Your task to perform on an android device: turn on the 12-hour format for clock Image 0: 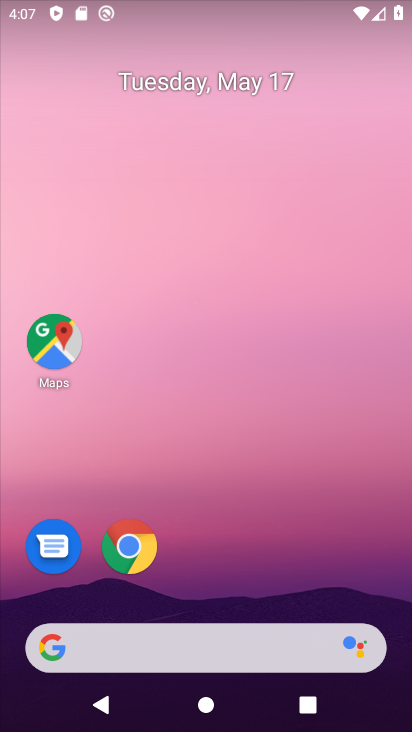
Step 0: drag from (221, 563) to (220, 167)
Your task to perform on an android device: turn on the 12-hour format for clock Image 1: 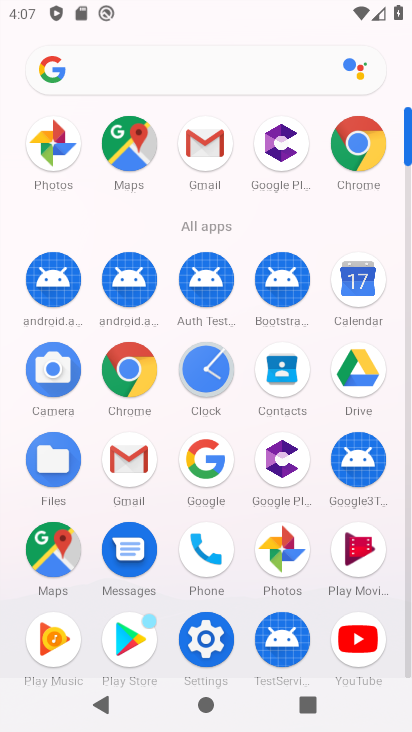
Step 1: click (214, 386)
Your task to perform on an android device: turn on the 12-hour format for clock Image 2: 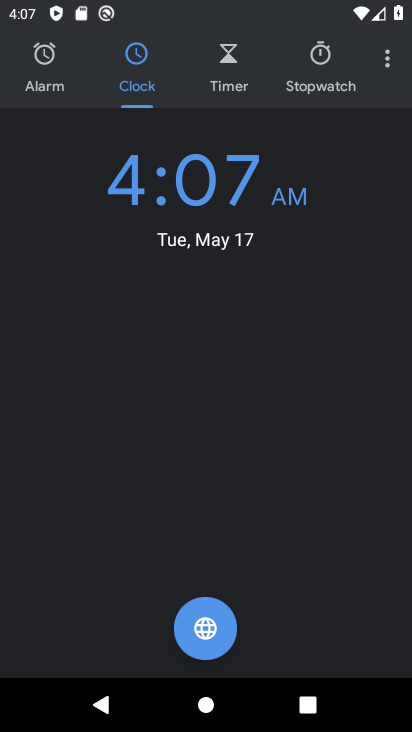
Step 2: click (391, 64)
Your task to perform on an android device: turn on the 12-hour format for clock Image 3: 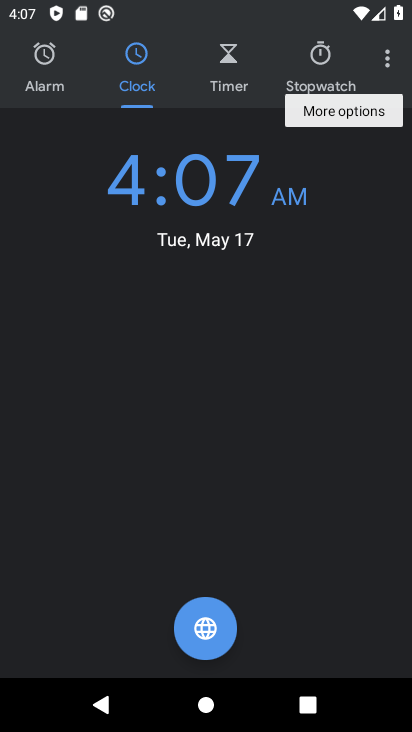
Step 3: drag from (391, 64) to (364, 92)
Your task to perform on an android device: turn on the 12-hour format for clock Image 4: 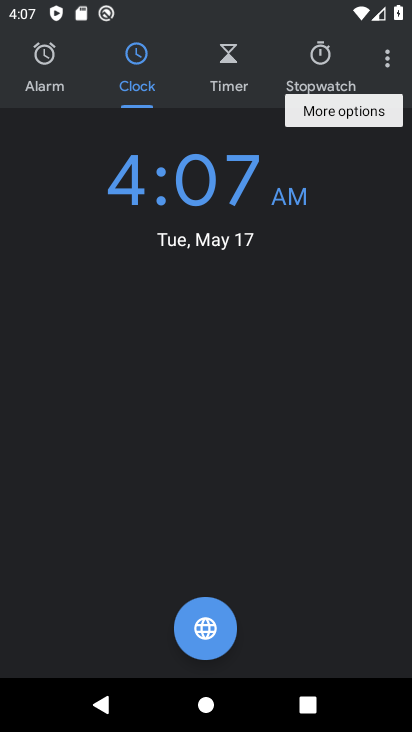
Step 4: click (385, 56)
Your task to perform on an android device: turn on the 12-hour format for clock Image 5: 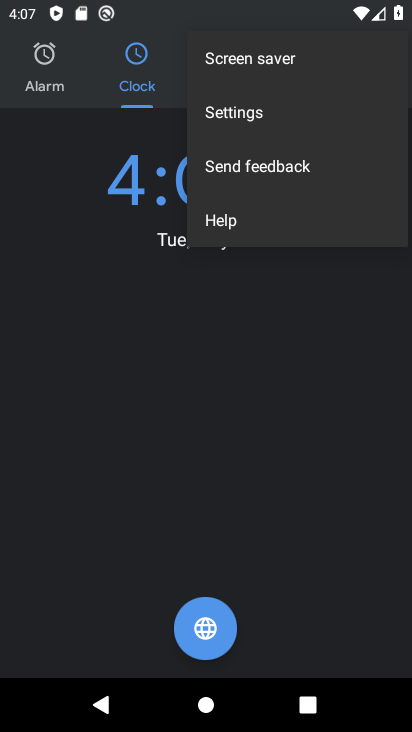
Step 5: click (298, 113)
Your task to perform on an android device: turn on the 12-hour format for clock Image 6: 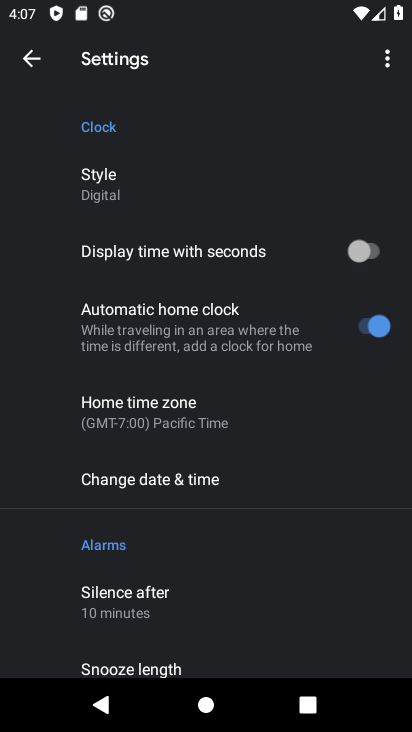
Step 6: click (187, 481)
Your task to perform on an android device: turn on the 12-hour format for clock Image 7: 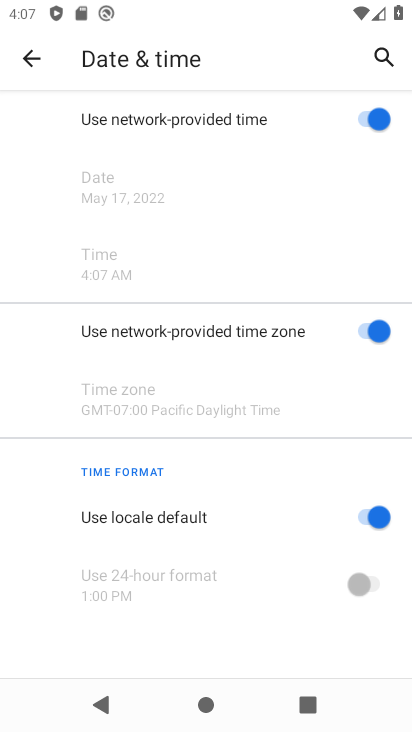
Step 7: task complete